Your task to perform on an android device: Go to CNN.com Image 0: 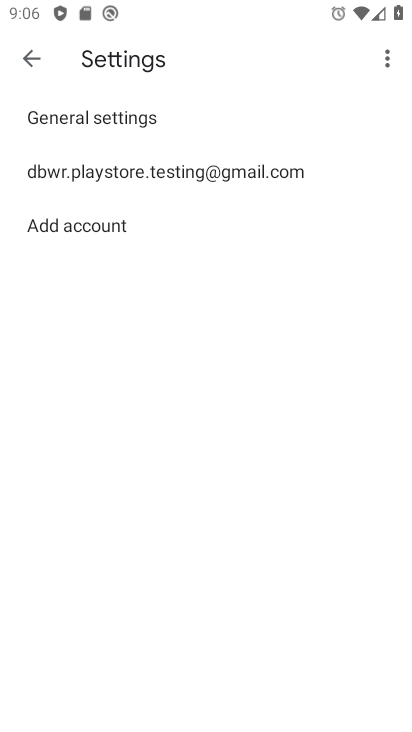
Step 0: press home button
Your task to perform on an android device: Go to CNN.com Image 1: 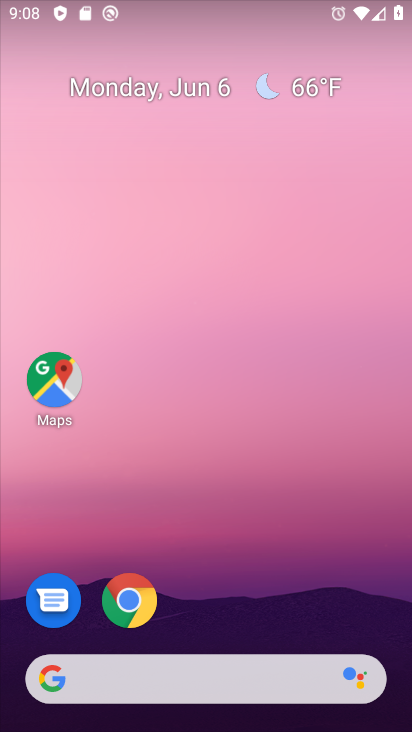
Step 1: click (231, 683)
Your task to perform on an android device: Go to CNN.com Image 2: 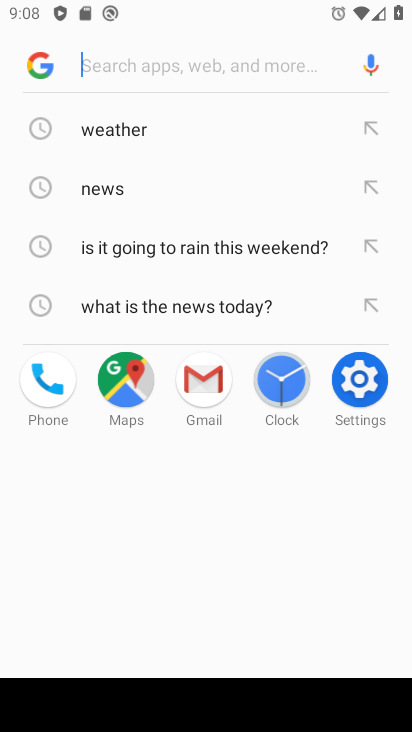
Step 2: type "CNN.com"
Your task to perform on an android device: Go to CNN.com Image 3: 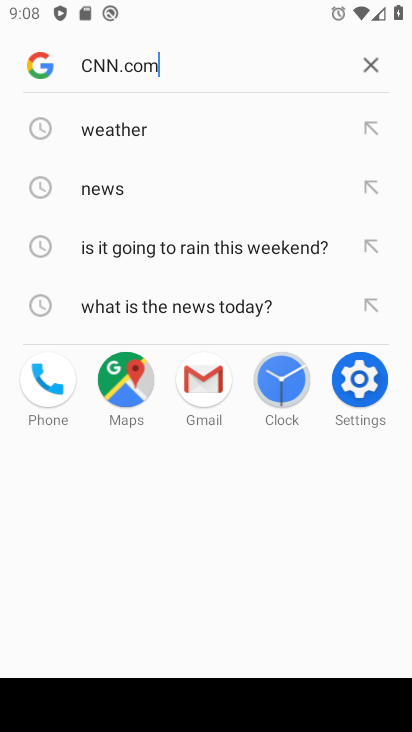
Step 3: type ""
Your task to perform on an android device: Go to CNN.com Image 4: 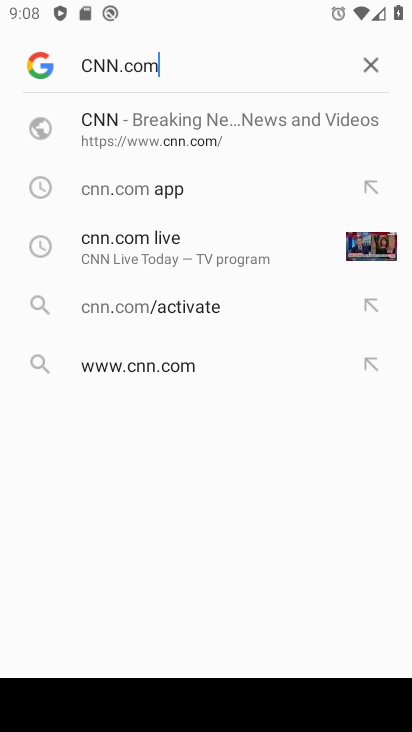
Step 4: click (132, 126)
Your task to perform on an android device: Go to CNN.com Image 5: 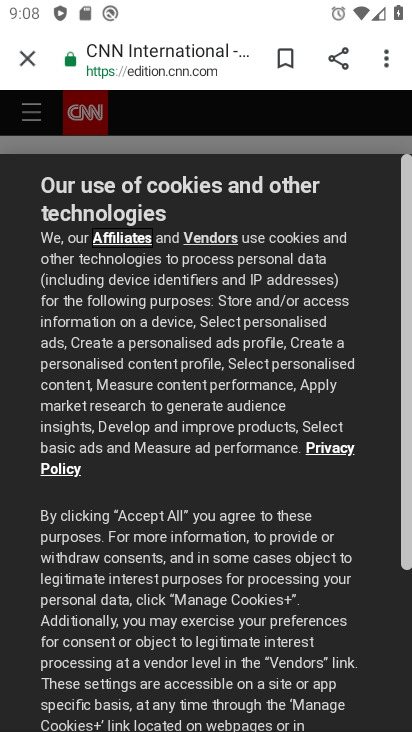
Step 5: task complete